Your task to perform on an android device: Open battery settings Image 0: 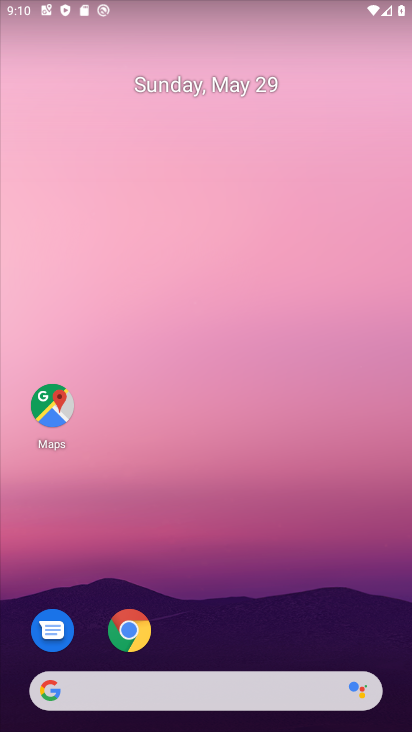
Step 0: drag from (318, 489) to (318, 199)
Your task to perform on an android device: Open battery settings Image 1: 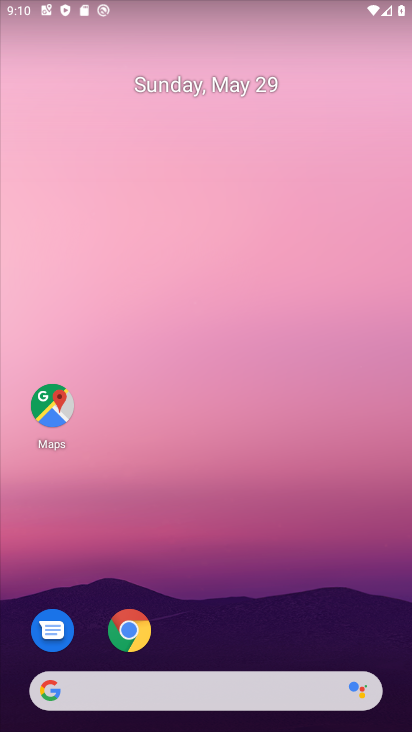
Step 1: drag from (298, 672) to (332, 316)
Your task to perform on an android device: Open battery settings Image 2: 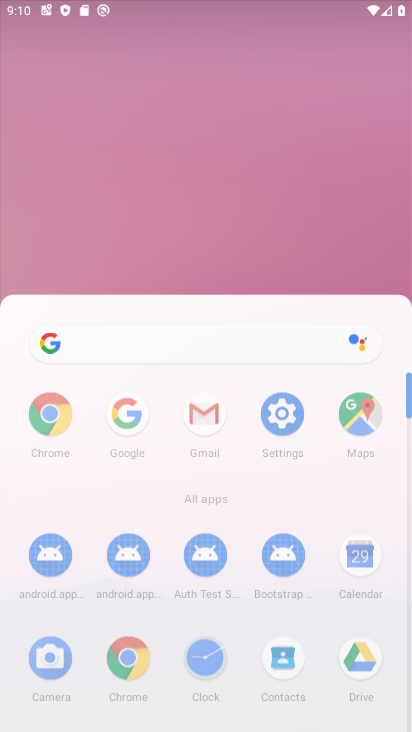
Step 2: click (333, 300)
Your task to perform on an android device: Open battery settings Image 3: 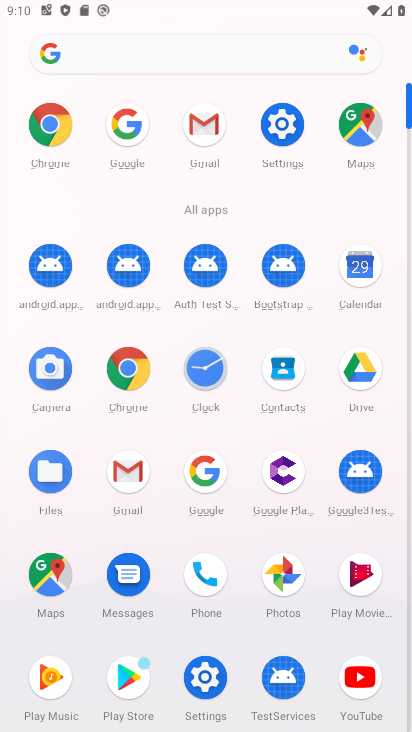
Step 3: click (285, 126)
Your task to perform on an android device: Open battery settings Image 4: 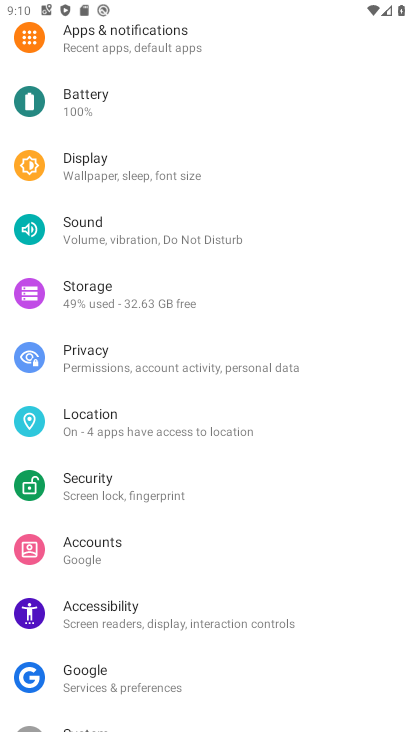
Step 4: click (205, 104)
Your task to perform on an android device: Open battery settings Image 5: 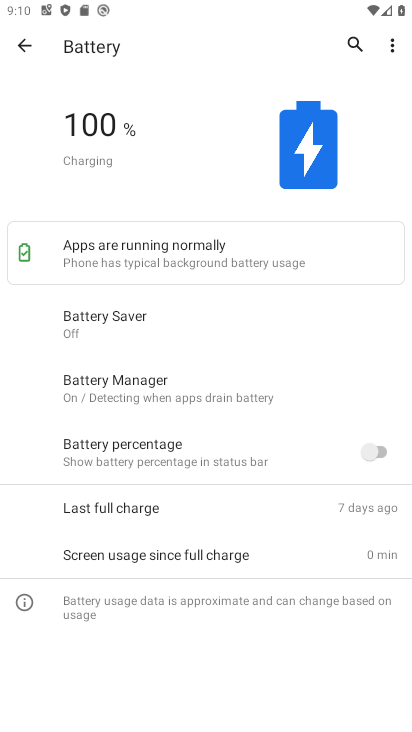
Step 5: task complete